Your task to perform on an android device: check storage Image 0: 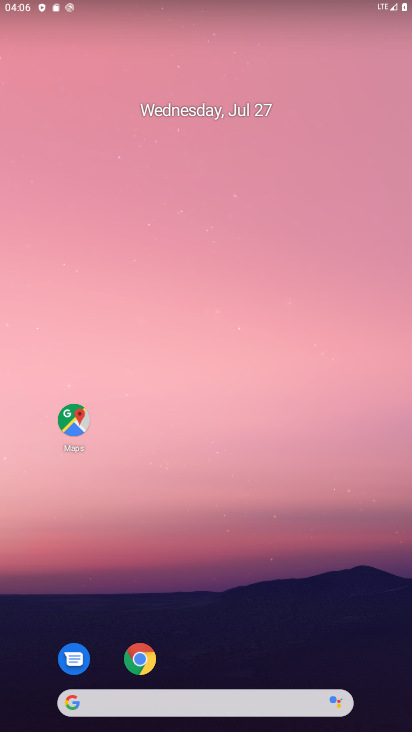
Step 0: drag from (290, 629) to (317, 92)
Your task to perform on an android device: check storage Image 1: 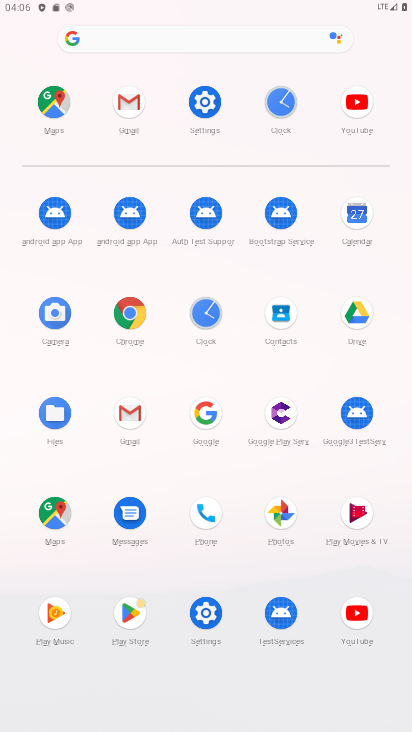
Step 1: click (209, 99)
Your task to perform on an android device: check storage Image 2: 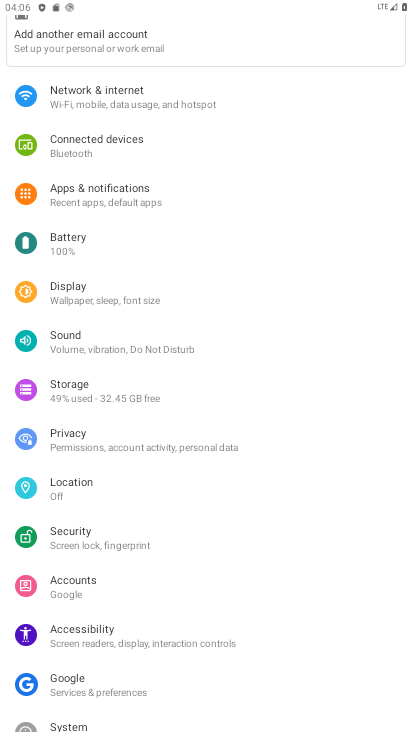
Step 2: click (125, 399)
Your task to perform on an android device: check storage Image 3: 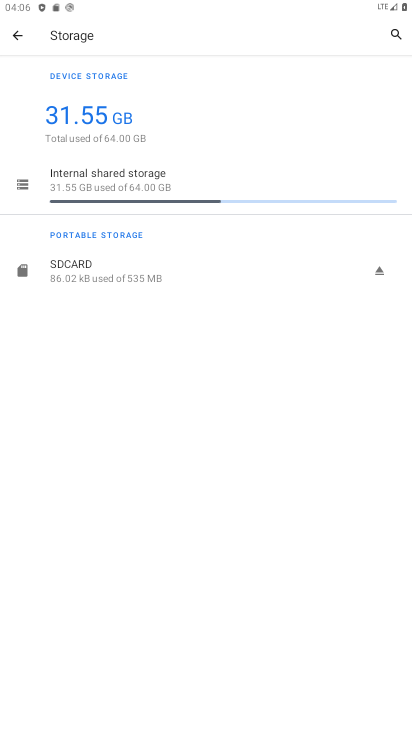
Step 3: task complete